Your task to perform on an android device: change notifications settings Image 0: 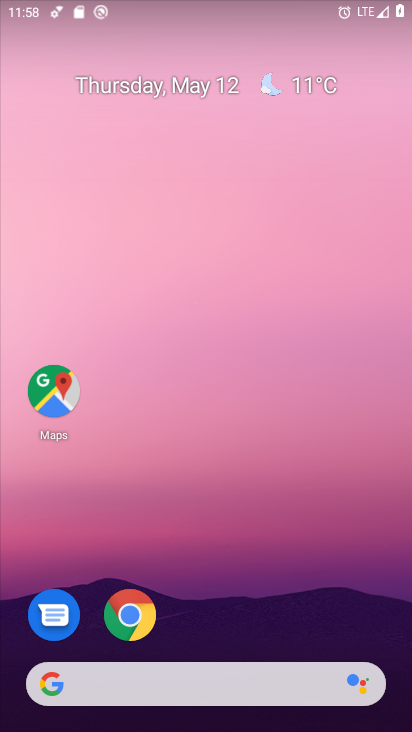
Step 0: drag from (320, 567) to (399, 78)
Your task to perform on an android device: change notifications settings Image 1: 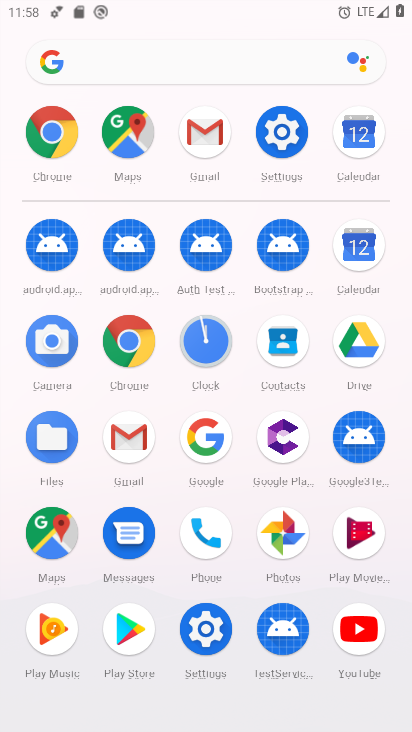
Step 1: click (280, 126)
Your task to perform on an android device: change notifications settings Image 2: 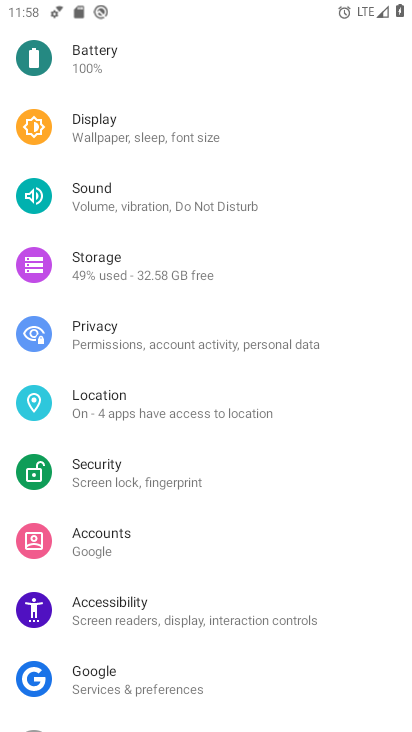
Step 2: drag from (213, 145) to (151, 475)
Your task to perform on an android device: change notifications settings Image 3: 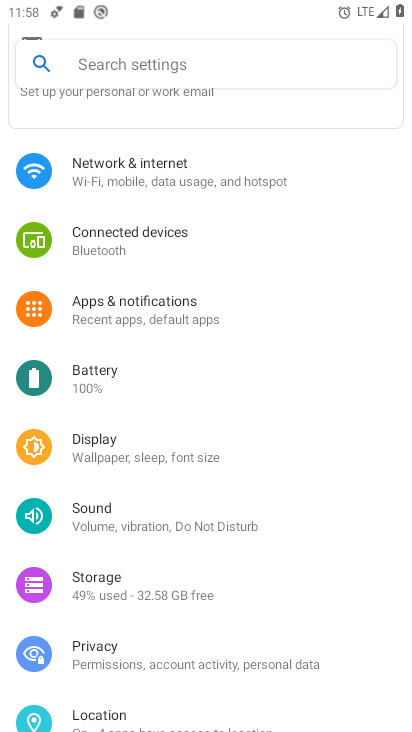
Step 3: click (190, 314)
Your task to perform on an android device: change notifications settings Image 4: 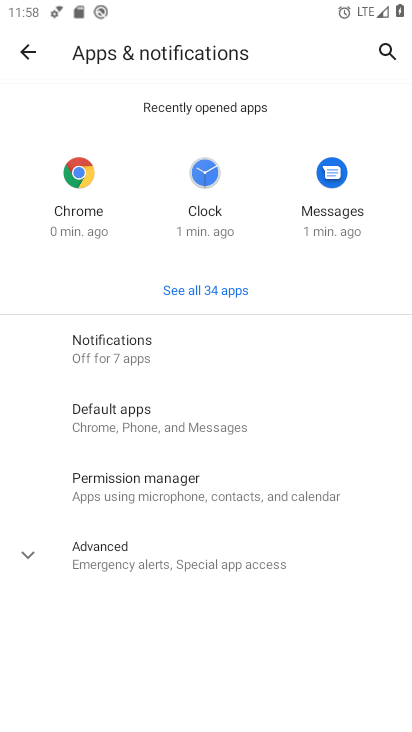
Step 4: click (203, 354)
Your task to perform on an android device: change notifications settings Image 5: 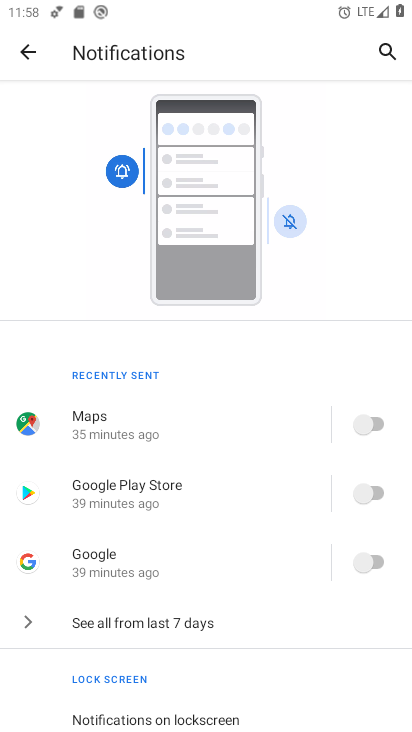
Step 5: click (208, 628)
Your task to perform on an android device: change notifications settings Image 6: 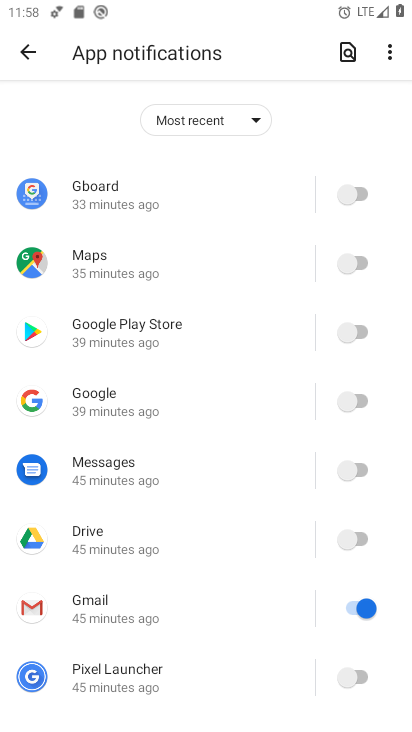
Step 6: click (361, 190)
Your task to perform on an android device: change notifications settings Image 7: 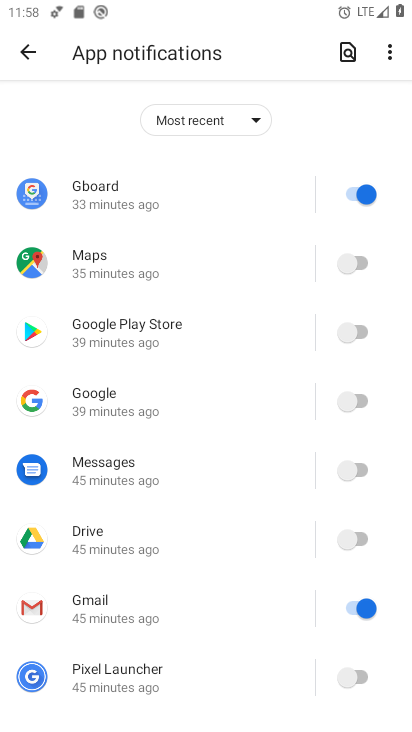
Step 7: click (354, 265)
Your task to perform on an android device: change notifications settings Image 8: 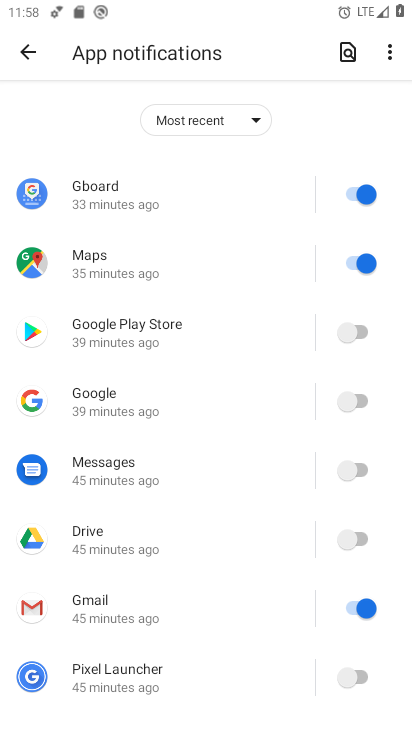
Step 8: click (351, 332)
Your task to perform on an android device: change notifications settings Image 9: 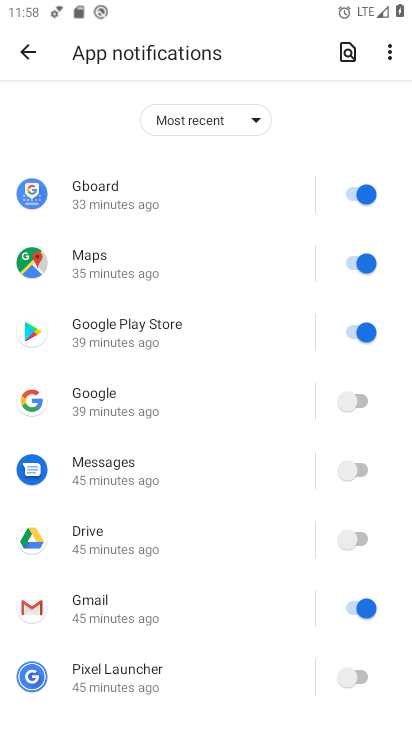
Step 9: click (349, 401)
Your task to perform on an android device: change notifications settings Image 10: 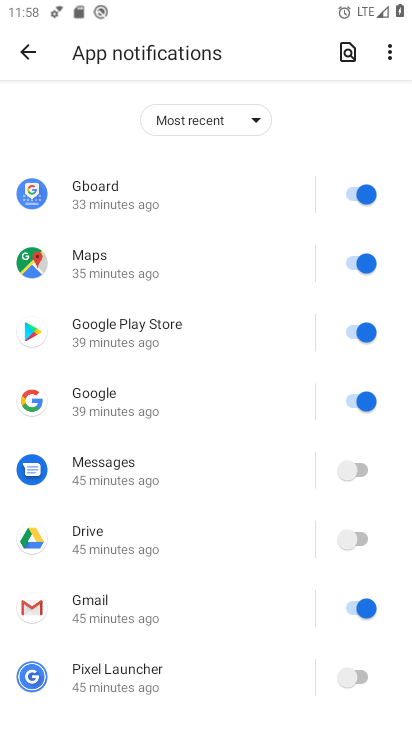
Step 10: click (359, 462)
Your task to perform on an android device: change notifications settings Image 11: 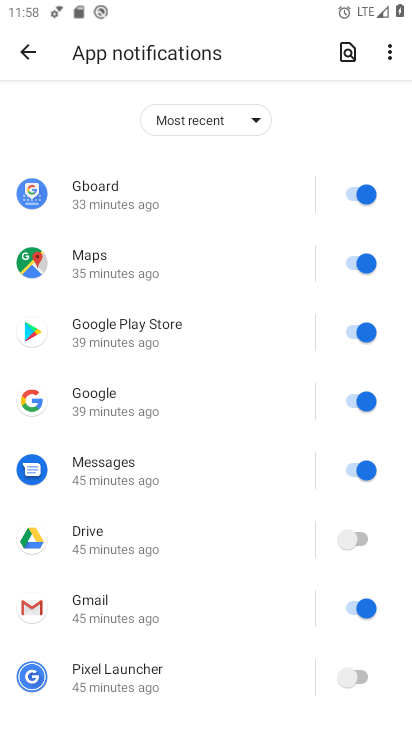
Step 11: click (361, 531)
Your task to perform on an android device: change notifications settings Image 12: 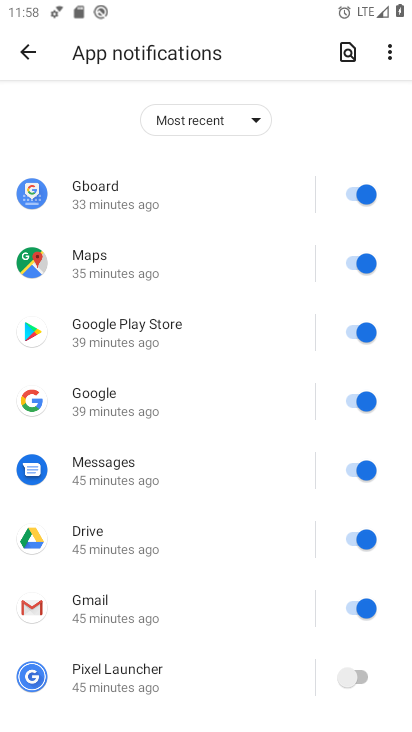
Step 12: click (359, 602)
Your task to perform on an android device: change notifications settings Image 13: 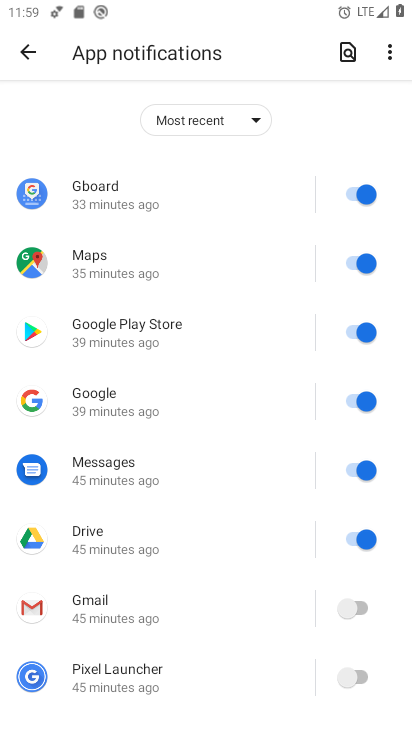
Step 13: click (357, 665)
Your task to perform on an android device: change notifications settings Image 14: 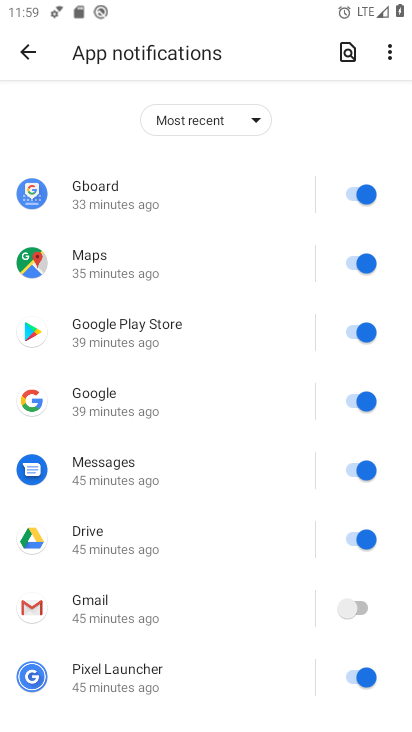
Step 14: task complete